Your task to perform on an android device: Open Google Chrome and click the shortcut for Amazon.com Image 0: 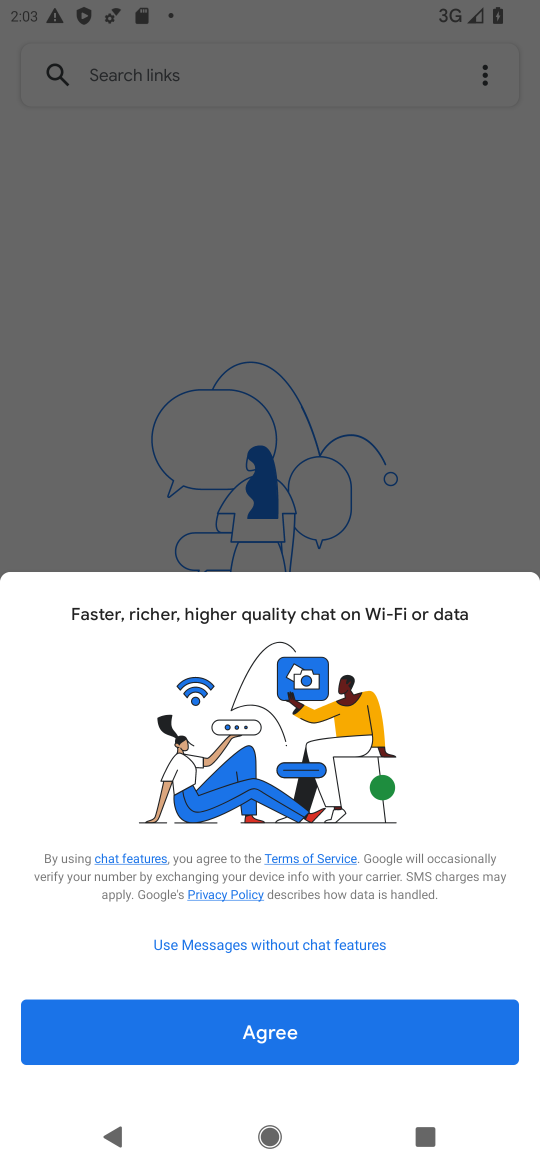
Step 0: press home button
Your task to perform on an android device: Open Google Chrome and click the shortcut for Amazon.com Image 1: 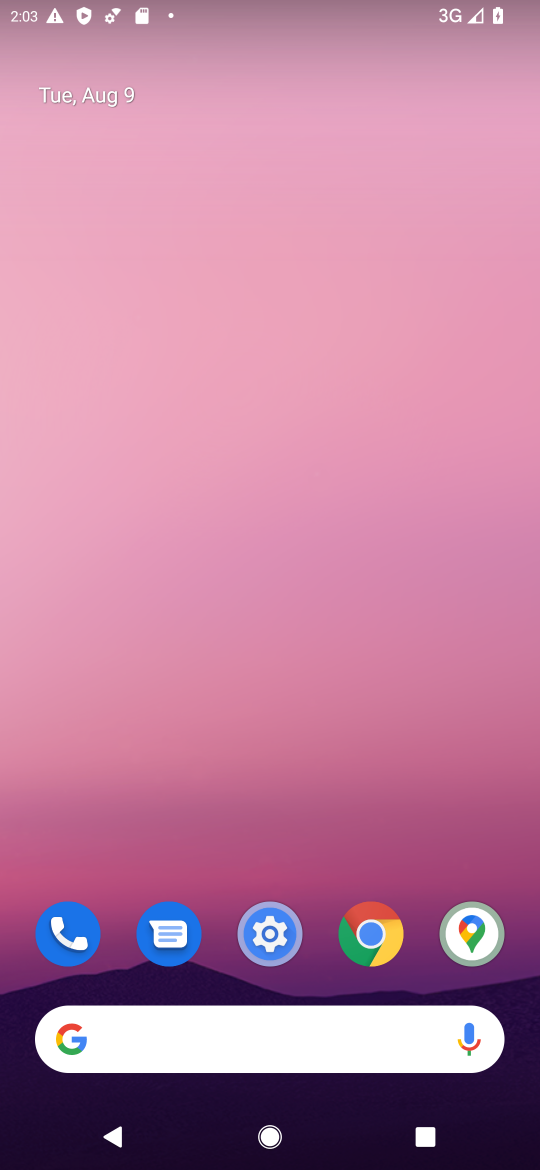
Step 1: click (356, 960)
Your task to perform on an android device: Open Google Chrome and click the shortcut for Amazon.com Image 2: 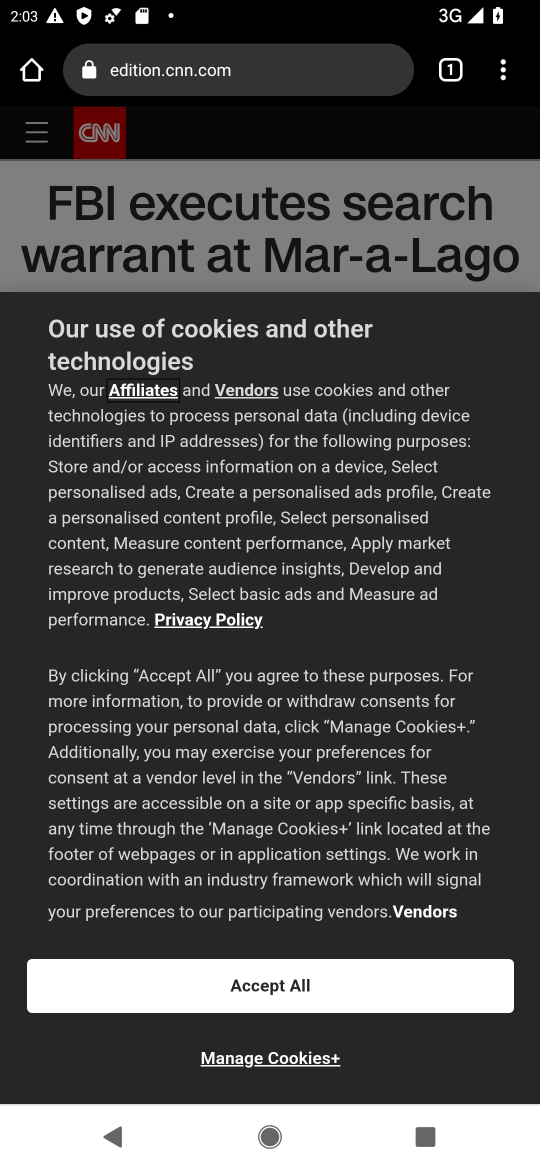
Step 2: click (268, 65)
Your task to perform on an android device: Open Google Chrome and click the shortcut for Amazon.com Image 3: 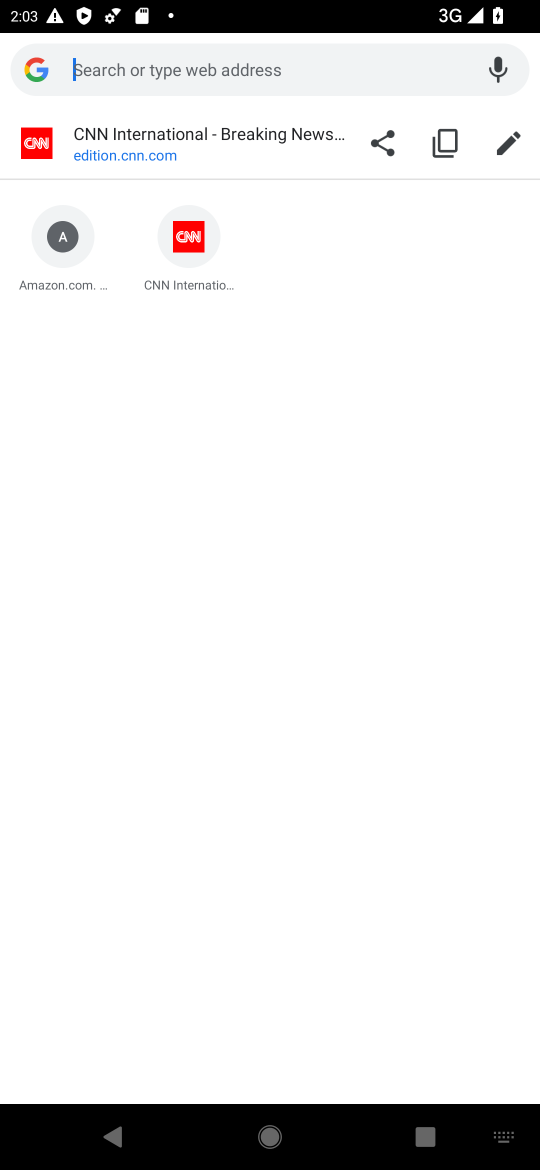
Step 3: click (48, 267)
Your task to perform on an android device: Open Google Chrome and click the shortcut for Amazon.com Image 4: 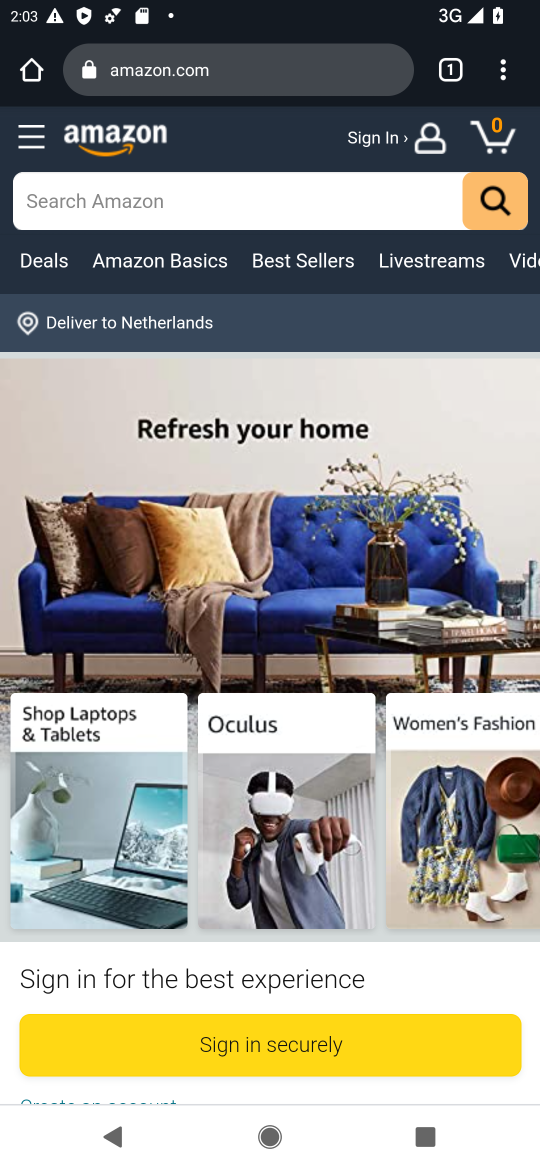
Step 4: task complete